Your task to perform on an android device: turn on airplane mode Image 0: 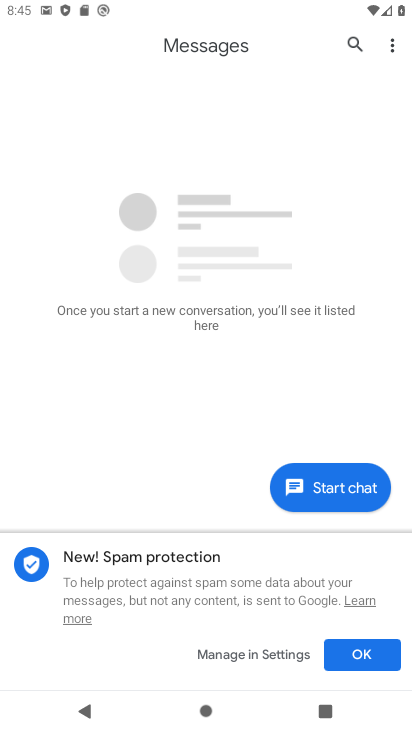
Step 0: press home button
Your task to perform on an android device: turn on airplane mode Image 1: 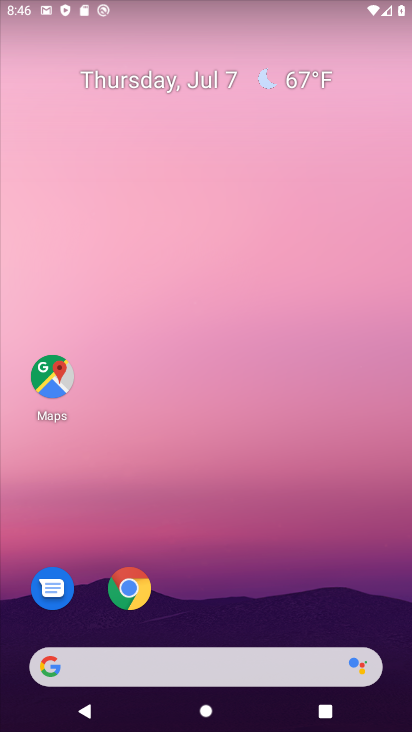
Step 1: drag from (248, 627) to (234, 236)
Your task to perform on an android device: turn on airplane mode Image 2: 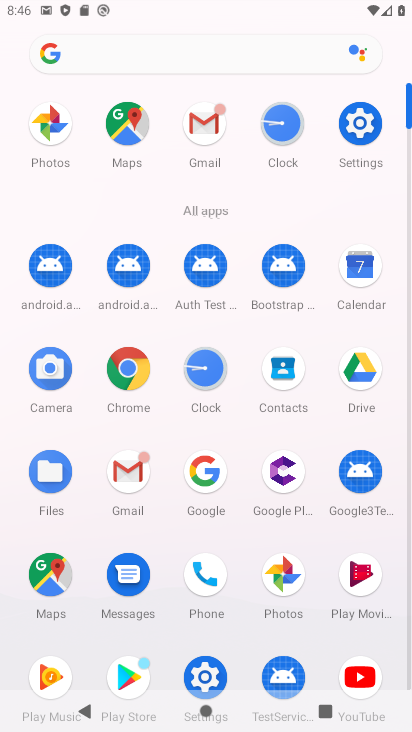
Step 2: click (360, 121)
Your task to perform on an android device: turn on airplane mode Image 3: 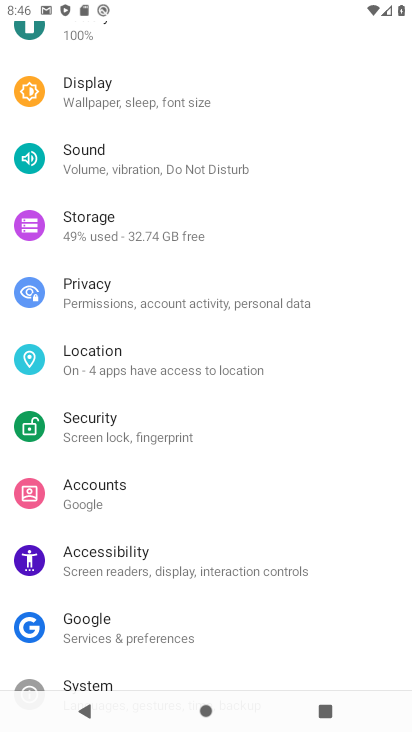
Step 3: drag from (203, 128) to (209, 233)
Your task to perform on an android device: turn on airplane mode Image 4: 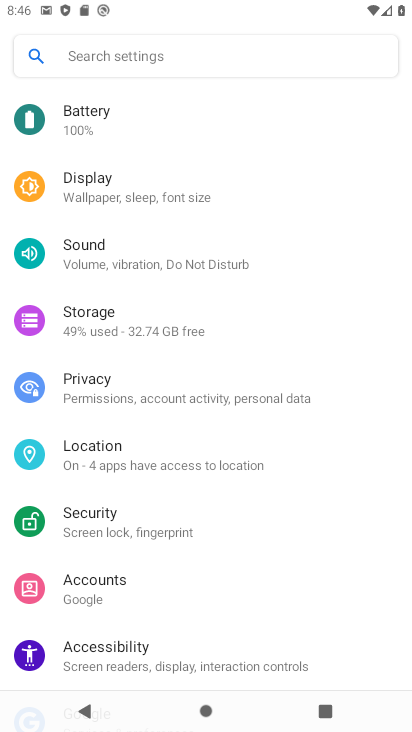
Step 4: drag from (209, 214) to (236, 298)
Your task to perform on an android device: turn on airplane mode Image 5: 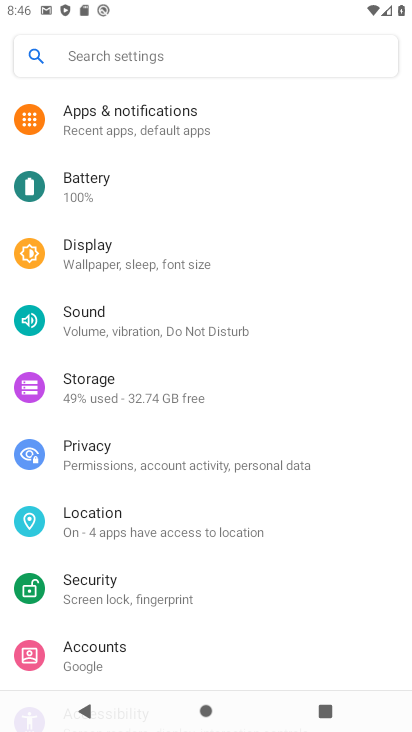
Step 5: drag from (198, 166) to (188, 348)
Your task to perform on an android device: turn on airplane mode Image 6: 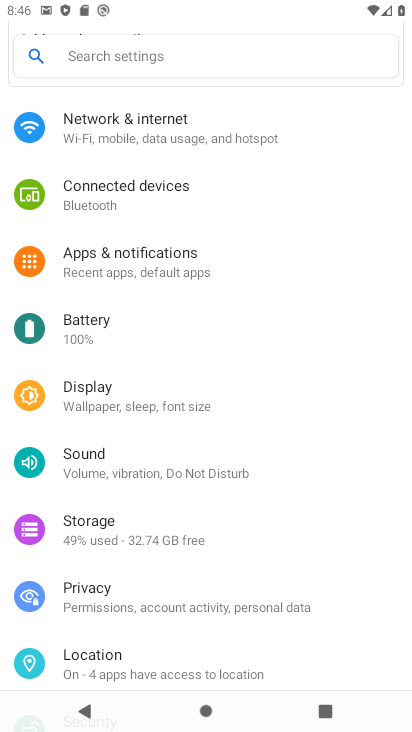
Step 6: click (172, 146)
Your task to perform on an android device: turn on airplane mode Image 7: 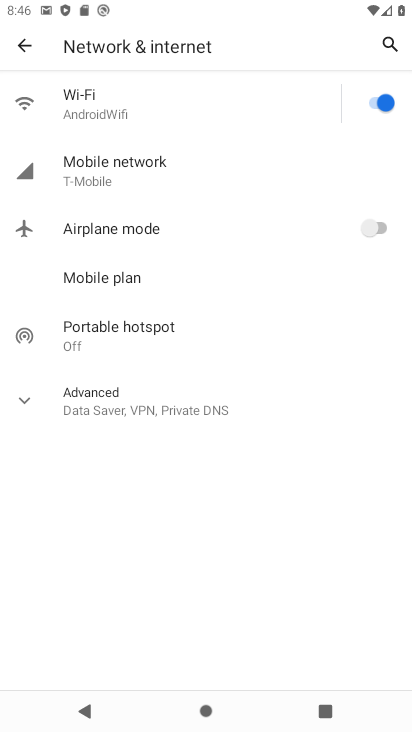
Step 7: click (377, 232)
Your task to perform on an android device: turn on airplane mode Image 8: 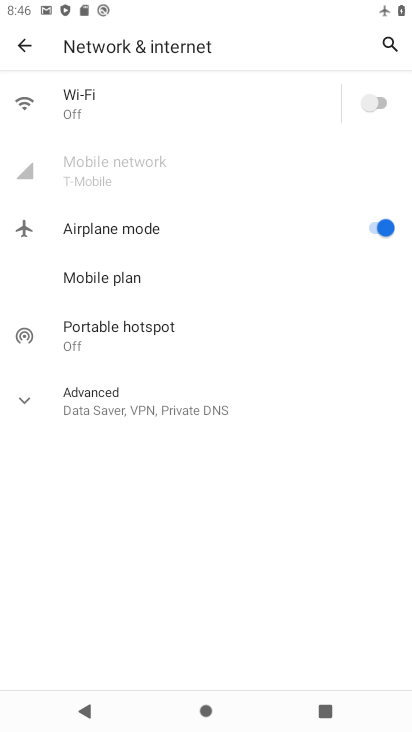
Step 8: task complete